Your task to perform on an android device: open the mobile data screen to see how much data has been used Image 0: 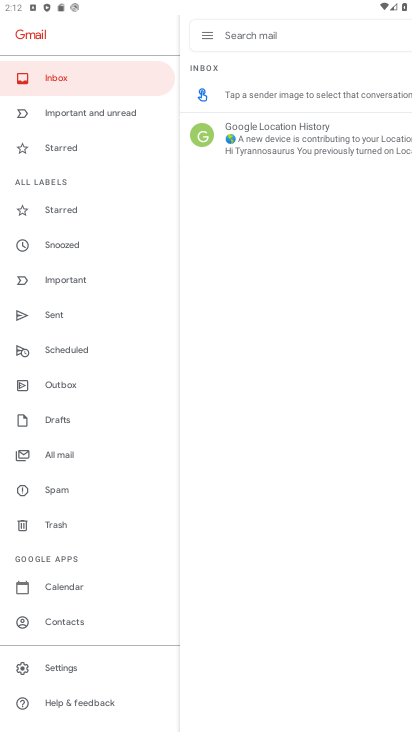
Step 0: click (377, 524)
Your task to perform on an android device: open the mobile data screen to see how much data has been used Image 1: 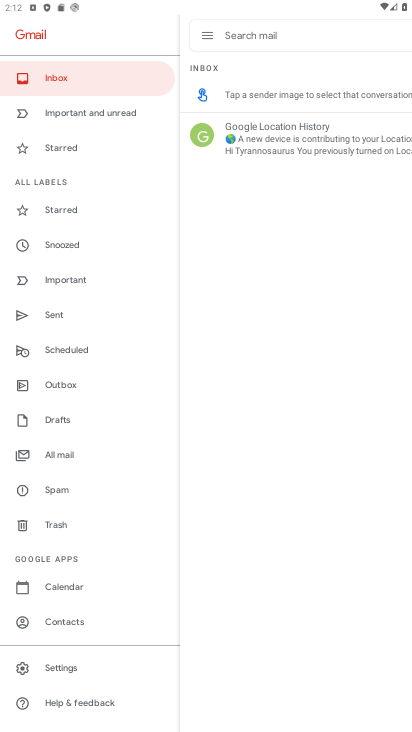
Step 1: press home button
Your task to perform on an android device: open the mobile data screen to see how much data has been used Image 2: 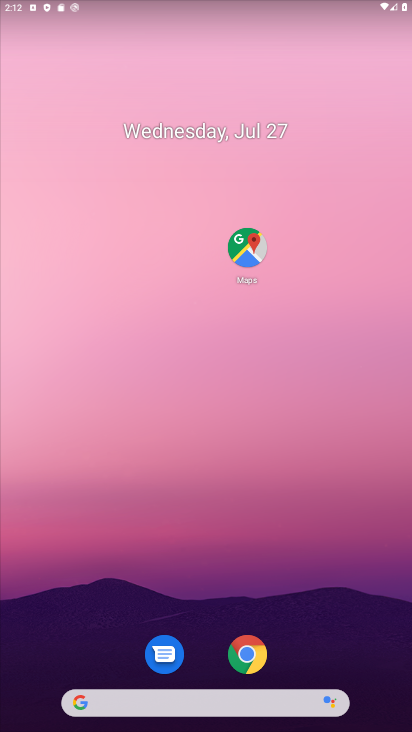
Step 2: drag from (6, 658) to (240, 113)
Your task to perform on an android device: open the mobile data screen to see how much data has been used Image 3: 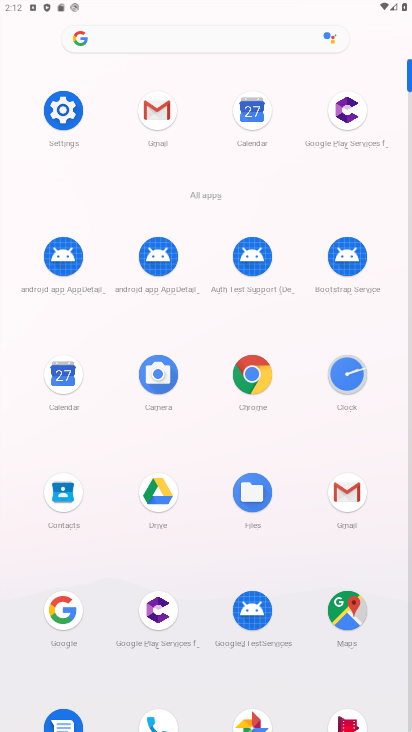
Step 3: click (73, 116)
Your task to perform on an android device: open the mobile data screen to see how much data has been used Image 4: 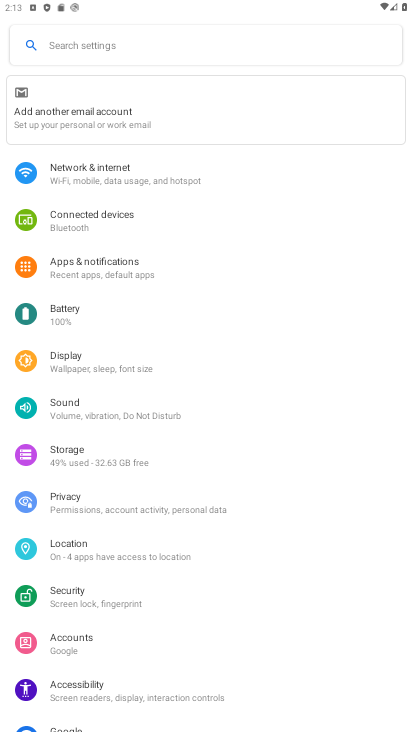
Step 4: click (65, 174)
Your task to perform on an android device: open the mobile data screen to see how much data has been used Image 5: 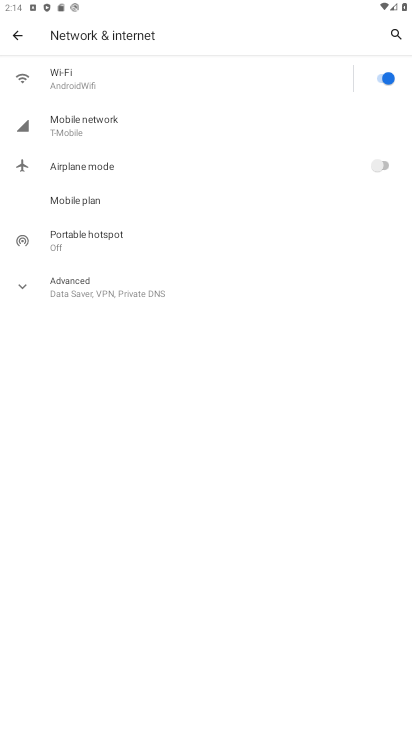
Step 5: click (122, 115)
Your task to perform on an android device: open the mobile data screen to see how much data has been used Image 6: 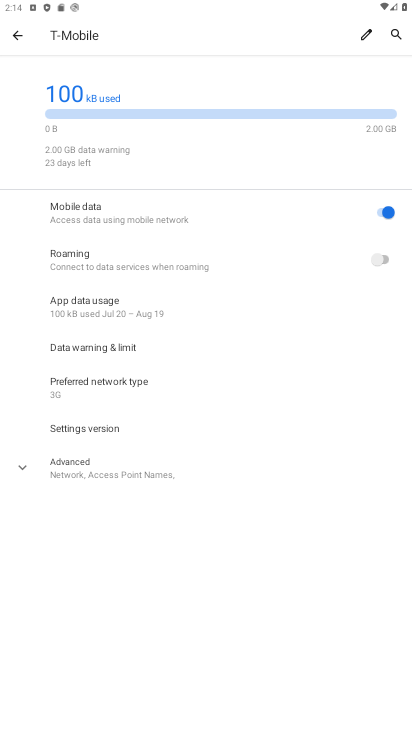
Step 6: task complete